Your task to perform on an android device: turn on priority inbox in the gmail app Image 0: 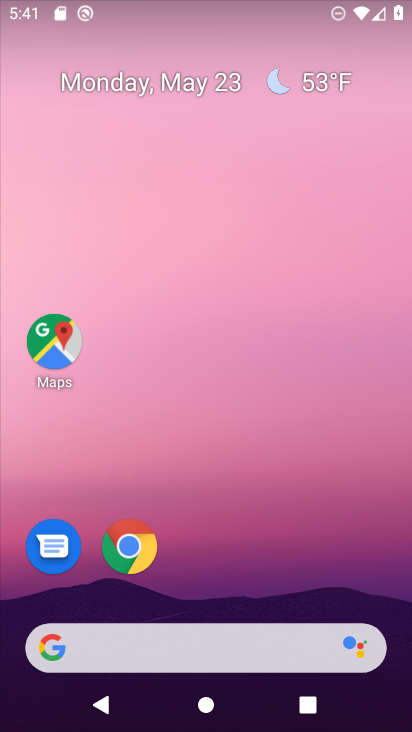
Step 0: drag from (248, 570) to (266, 75)
Your task to perform on an android device: turn on priority inbox in the gmail app Image 1: 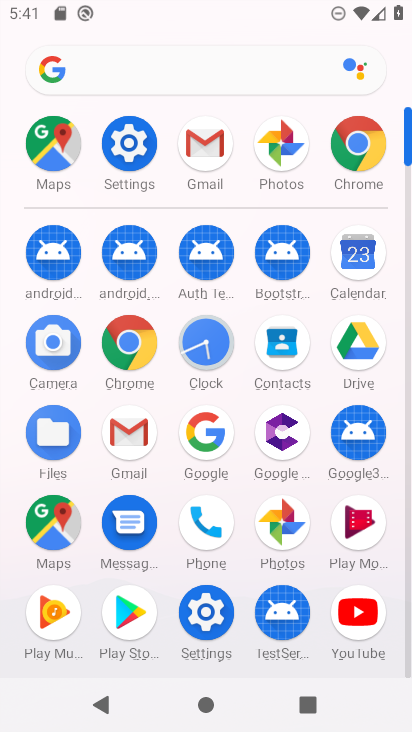
Step 1: click (209, 608)
Your task to perform on an android device: turn on priority inbox in the gmail app Image 2: 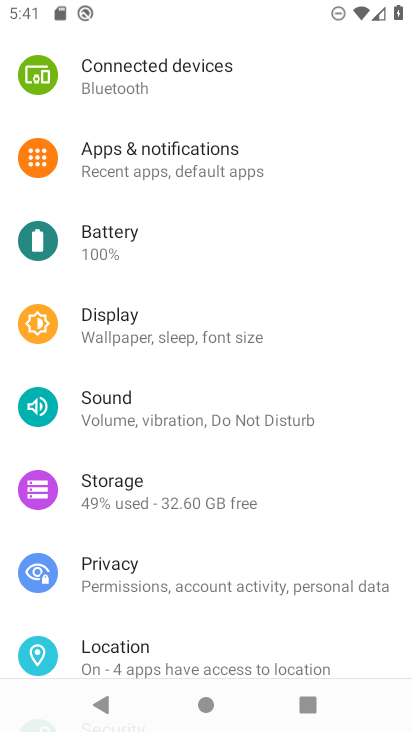
Step 2: press home button
Your task to perform on an android device: turn on priority inbox in the gmail app Image 3: 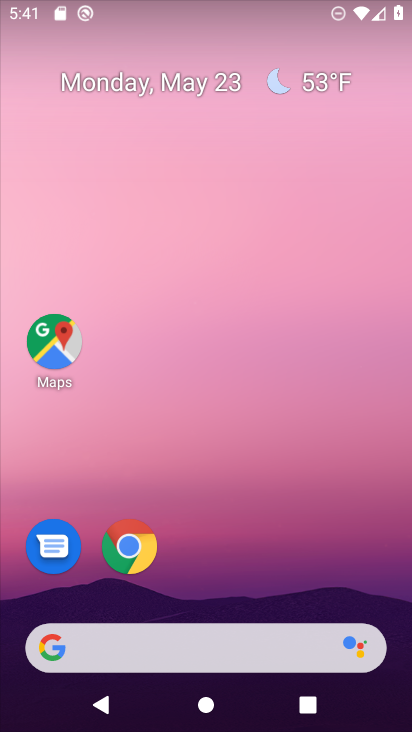
Step 3: drag from (255, 566) to (249, 23)
Your task to perform on an android device: turn on priority inbox in the gmail app Image 4: 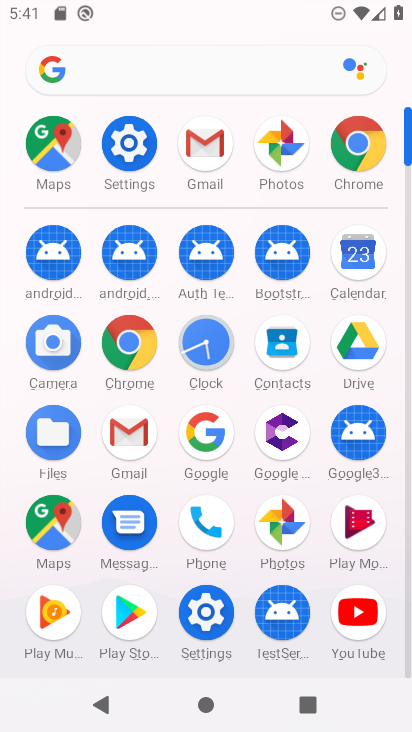
Step 4: click (211, 151)
Your task to perform on an android device: turn on priority inbox in the gmail app Image 5: 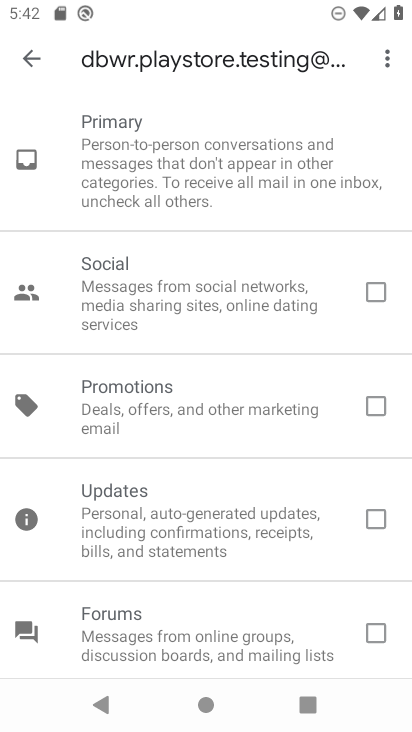
Step 5: click (36, 58)
Your task to perform on an android device: turn on priority inbox in the gmail app Image 6: 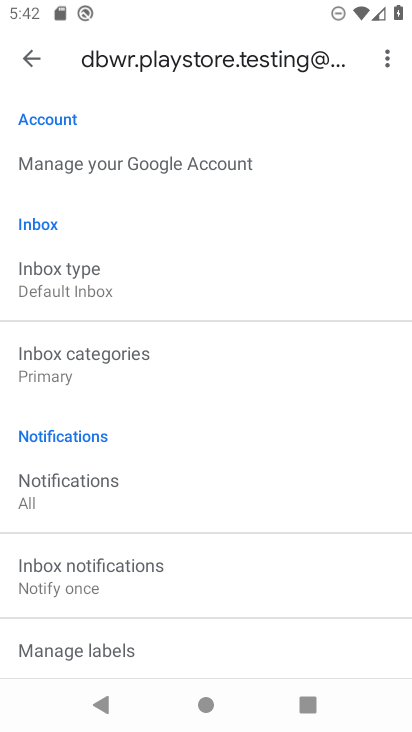
Step 6: click (65, 279)
Your task to perform on an android device: turn on priority inbox in the gmail app Image 7: 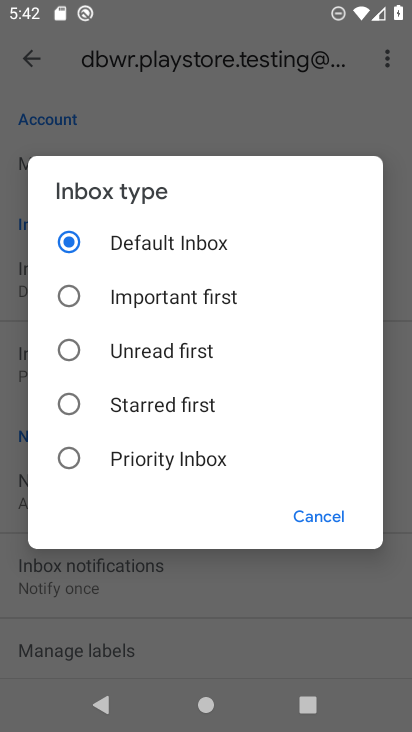
Step 7: click (75, 458)
Your task to perform on an android device: turn on priority inbox in the gmail app Image 8: 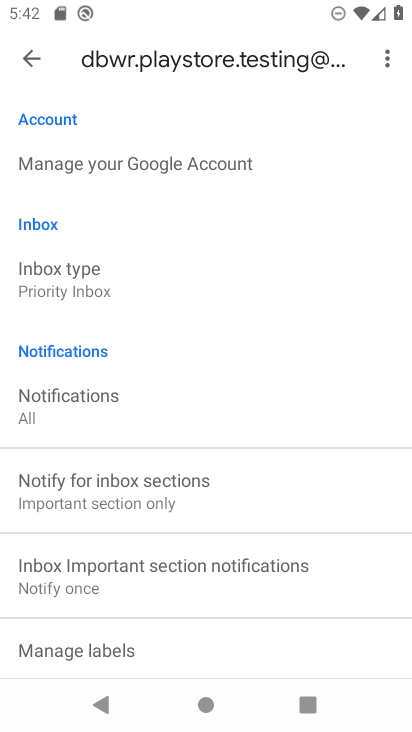
Step 8: task complete